Your task to perform on an android device: Open Google Image 0: 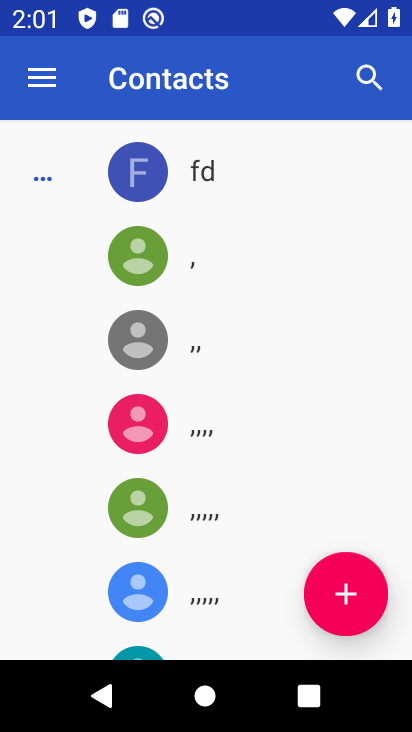
Step 0: press home button
Your task to perform on an android device: Open Google Image 1: 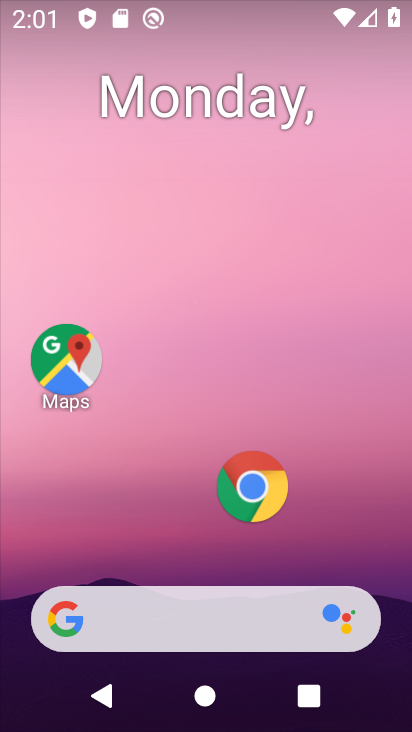
Step 1: drag from (232, 558) to (260, 61)
Your task to perform on an android device: Open Google Image 2: 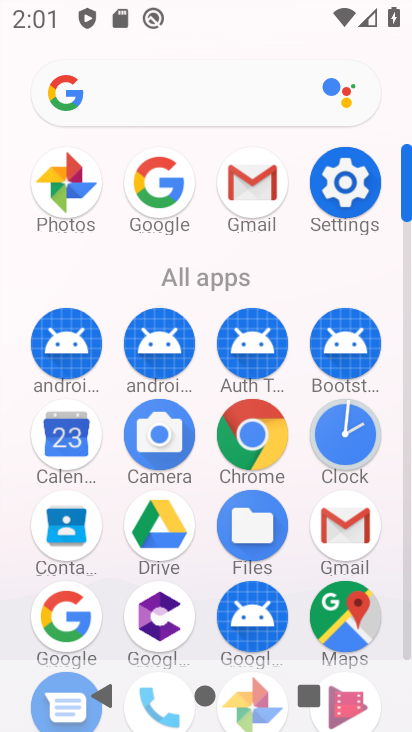
Step 2: click (65, 614)
Your task to perform on an android device: Open Google Image 3: 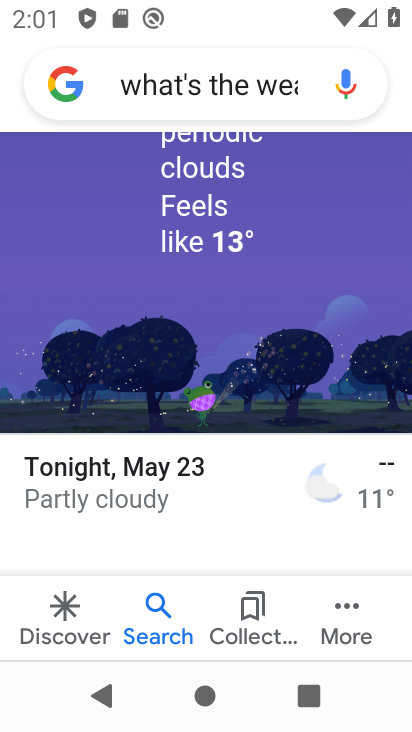
Step 3: task complete